Your task to perform on an android device: Open display settings Image 0: 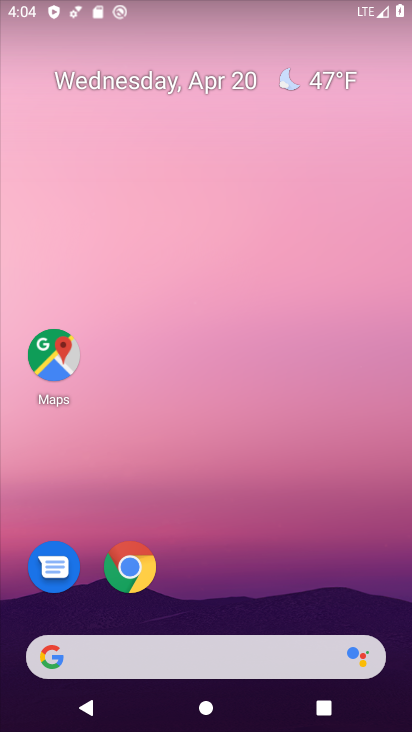
Step 0: drag from (347, 567) to (306, 50)
Your task to perform on an android device: Open display settings Image 1: 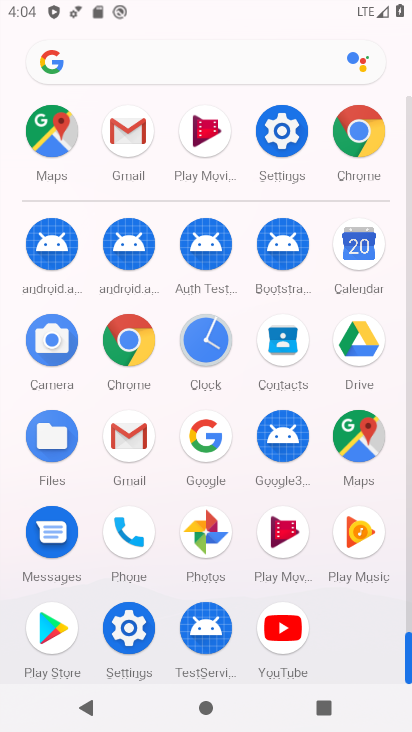
Step 1: click (127, 628)
Your task to perform on an android device: Open display settings Image 2: 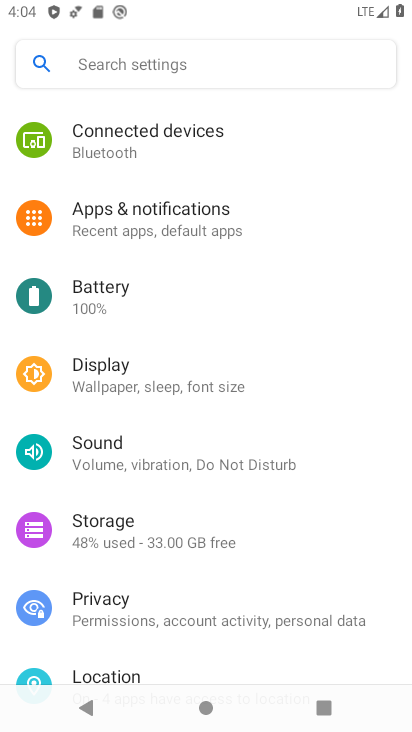
Step 2: drag from (292, 179) to (241, 572)
Your task to perform on an android device: Open display settings Image 3: 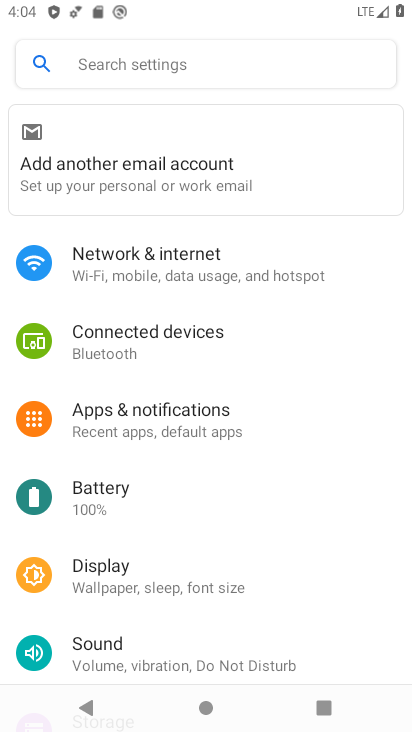
Step 3: drag from (241, 545) to (259, 293)
Your task to perform on an android device: Open display settings Image 4: 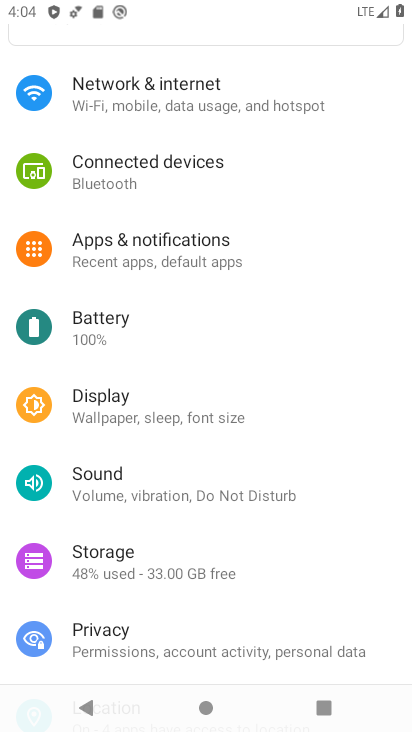
Step 4: click (117, 320)
Your task to perform on an android device: Open display settings Image 5: 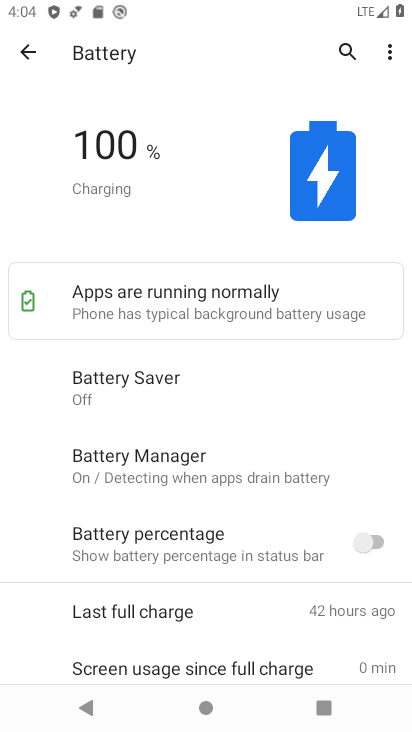
Step 5: click (32, 52)
Your task to perform on an android device: Open display settings Image 6: 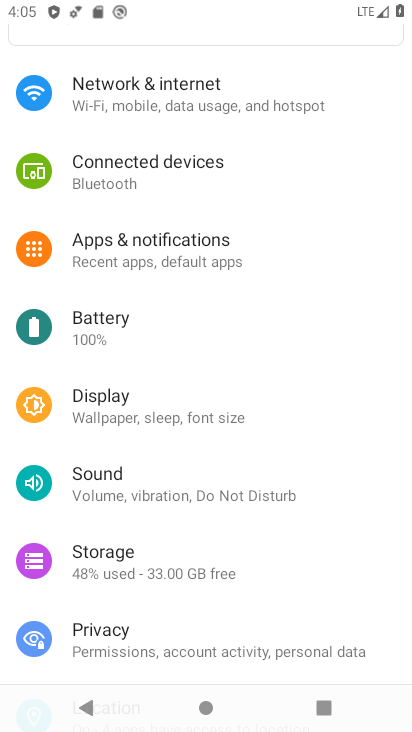
Step 6: click (107, 392)
Your task to perform on an android device: Open display settings Image 7: 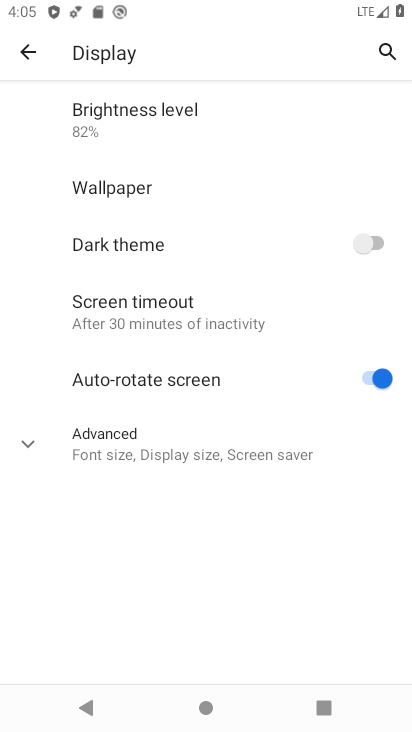
Step 7: click (25, 437)
Your task to perform on an android device: Open display settings Image 8: 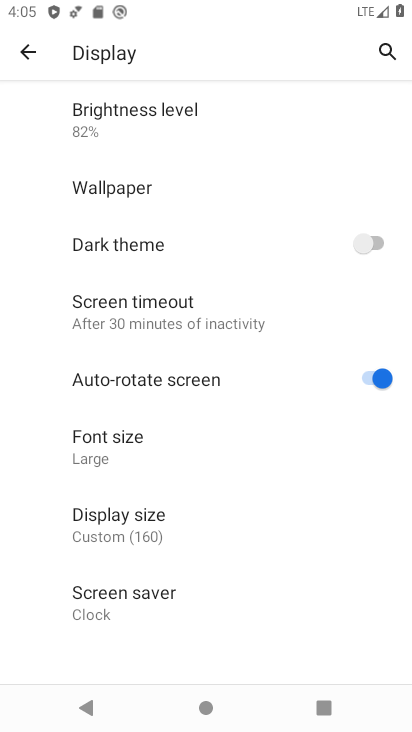
Step 8: task complete